Your task to perform on an android device: toggle improve location accuracy Image 0: 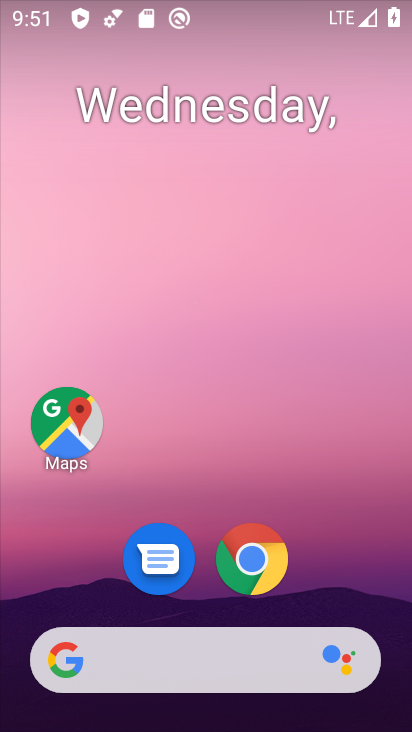
Step 0: drag from (348, 484) to (406, 150)
Your task to perform on an android device: toggle improve location accuracy Image 1: 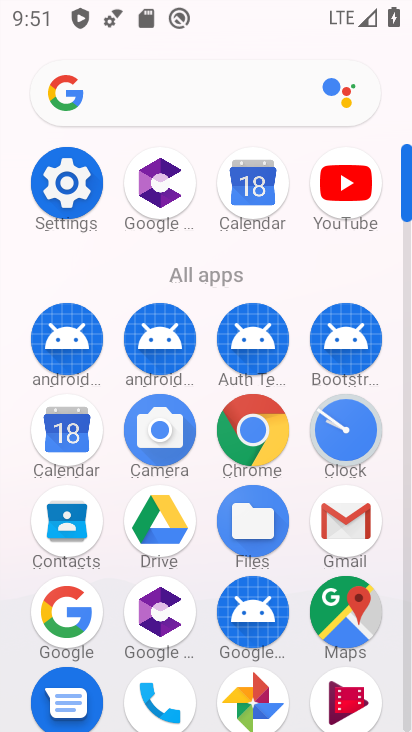
Step 1: click (78, 185)
Your task to perform on an android device: toggle improve location accuracy Image 2: 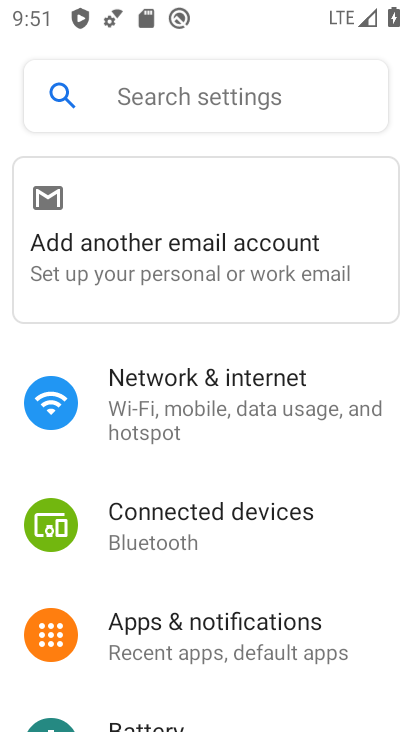
Step 2: drag from (142, 636) to (146, 57)
Your task to perform on an android device: toggle improve location accuracy Image 3: 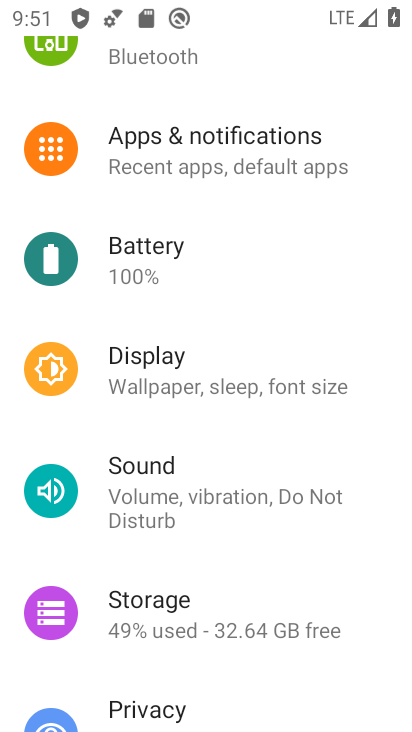
Step 3: drag from (215, 602) to (235, 131)
Your task to perform on an android device: toggle improve location accuracy Image 4: 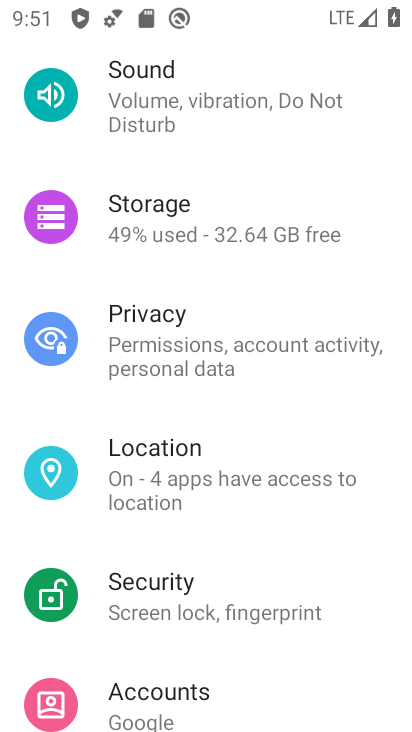
Step 4: click (182, 462)
Your task to perform on an android device: toggle improve location accuracy Image 5: 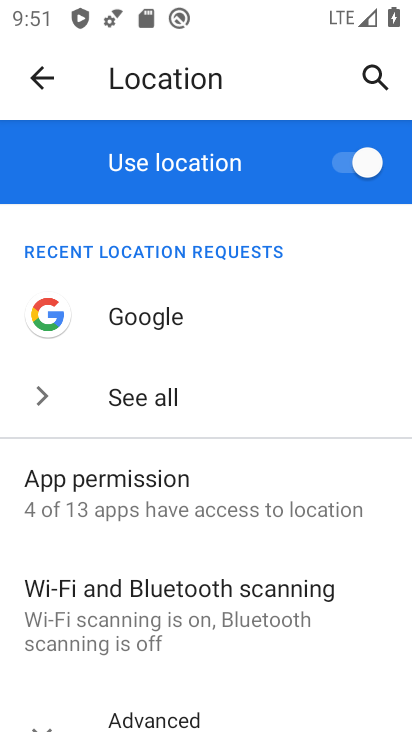
Step 5: drag from (153, 547) to (211, 118)
Your task to perform on an android device: toggle improve location accuracy Image 6: 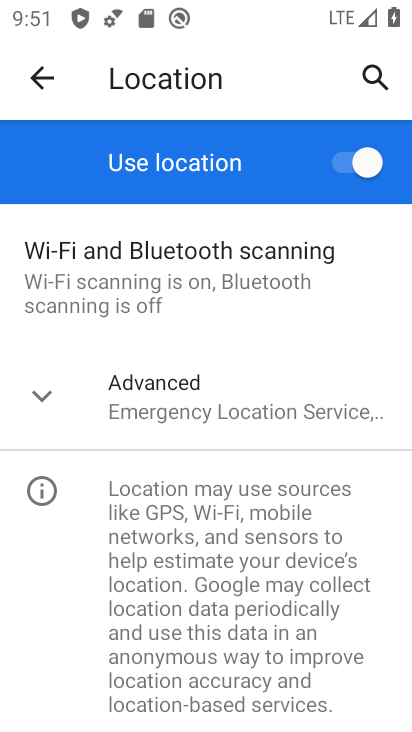
Step 6: click (192, 400)
Your task to perform on an android device: toggle improve location accuracy Image 7: 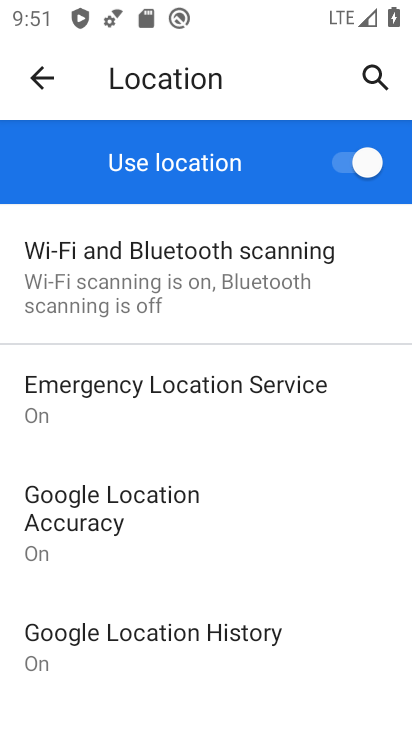
Step 7: drag from (211, 607) to (184, 349)
Your task to perform on an android device: toggle improve location accuracy Image 8: 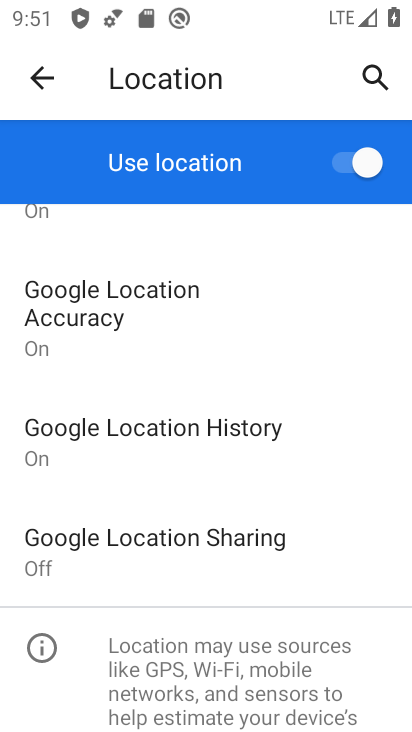
Step 8: click (58, 302)
Your task to perform on an android device: toggle improve location accuracy Image 9: 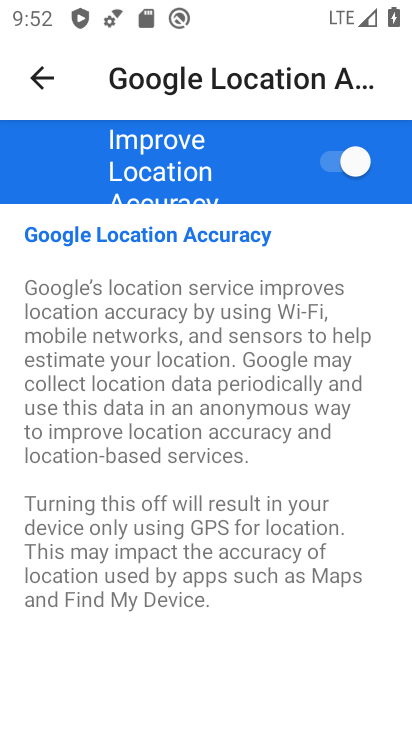
Step 9: click (363, 170)
Your task to perform on an android device: toggle improve location accuracy Image 10: 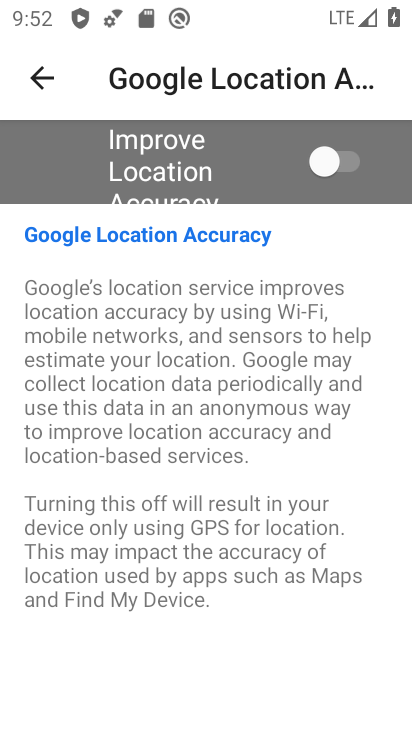
Step 10: task complete